Your task to perform on an android device: turn on notifications settings in the gmail app Image 0: 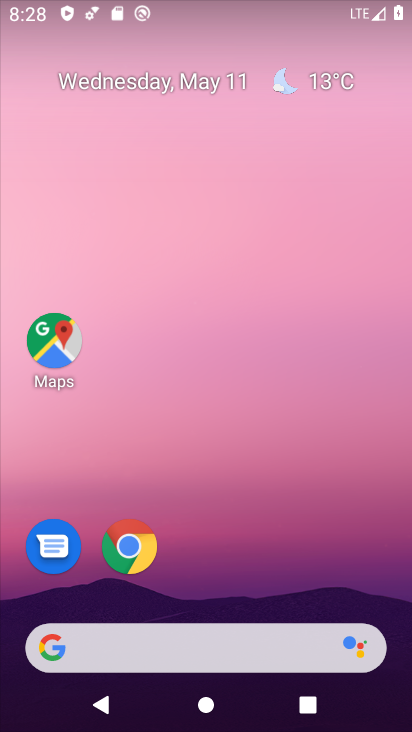
Step 0: drag from (231, 594) to (342, 19)
Your task to perform on an android device: turn on notifications settings in the gmail app Image 1: 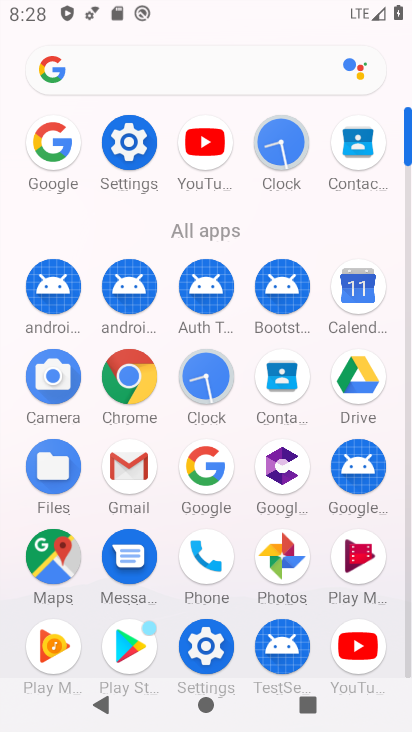
Step 1: click (129, 472)
Your task to perform on an android device: turn on notifications settings in the gmail app Image 2: 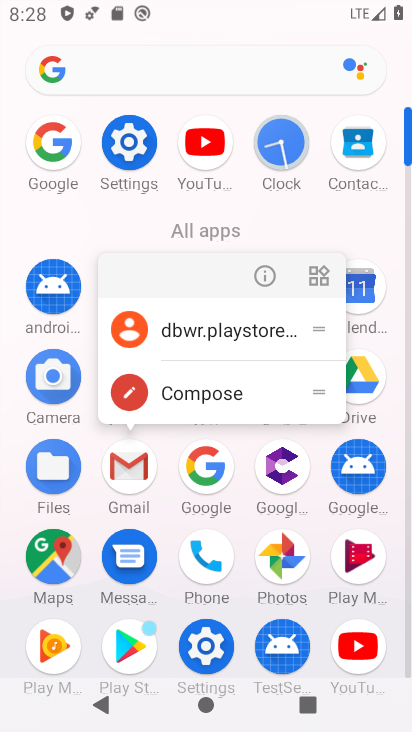
Step 2: click (258, 276)
Your task to perform on an android device: turn on notifications settings in the gmail app Image 3: 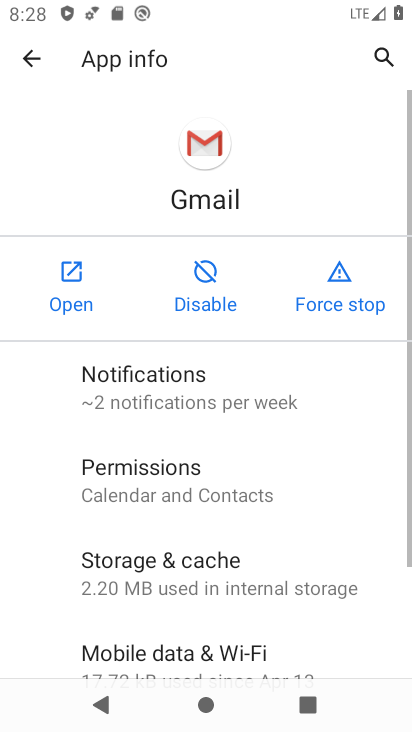
Step 3: click (191, 392)
Your task to perform on an android device: turn on notifications settings in the gmail app Image 4: 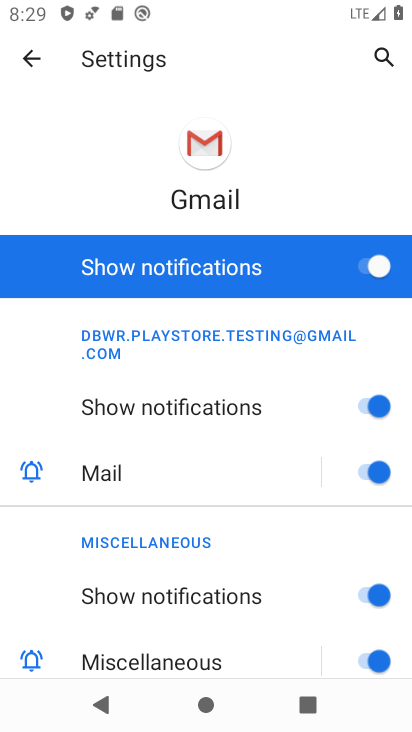
Step 4: task complete